Your task to perform on an android device: turn off priority inbox in the gmail app Image 0: 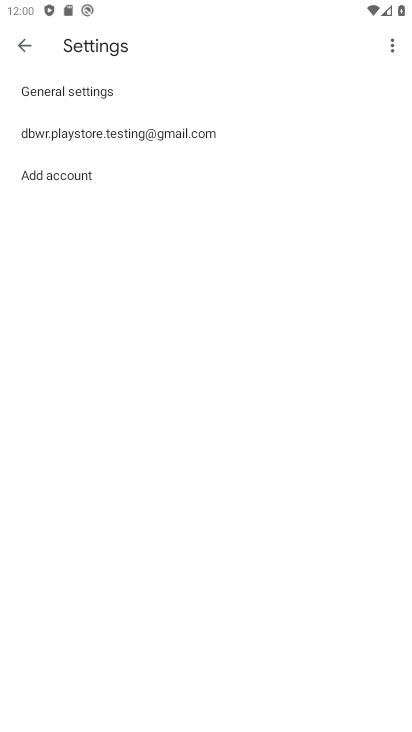
Step 0: press home button
Your task to perform on an android device: turn off priority inbox in the gmail app Image 1: 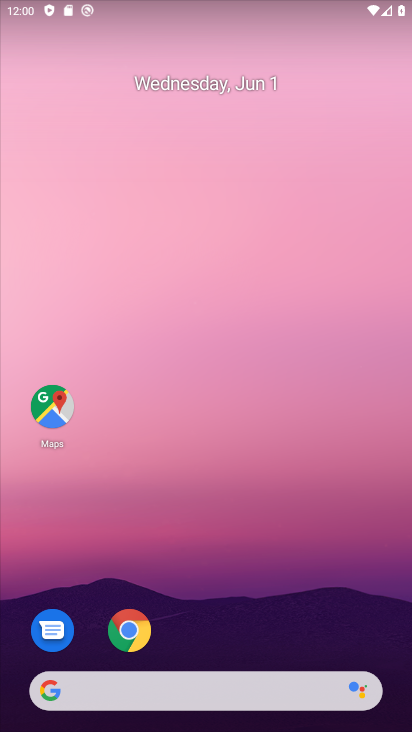
Step 1: drag from (381, 610) to (364, 263)
Your task to perform on an android device: turn off priority inbox in the gmail app Image 2: 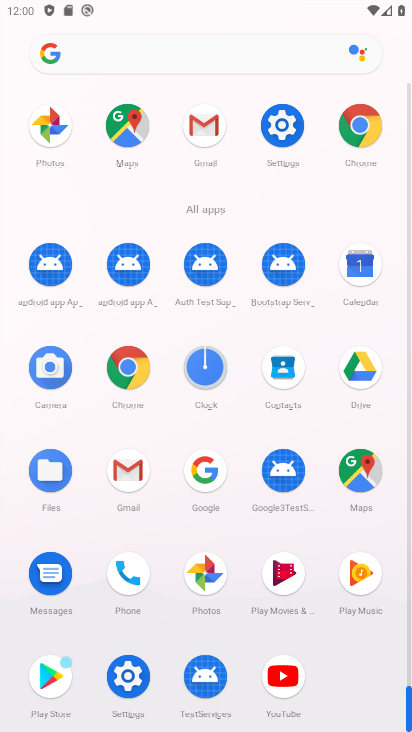
Step 2: click (138, 476)
Your task to perform on an android device: turn off priority inbox in the gmail app Image 3: 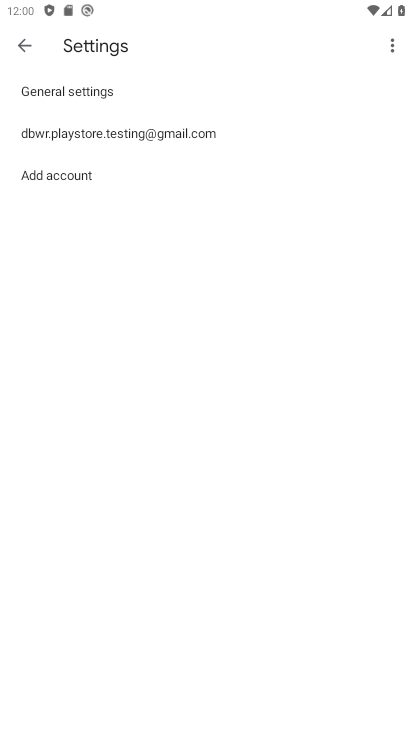
Step 3: click (186, 144)
Your task to perform on an android device: turn off priority inbox in the gmail app Image 4: 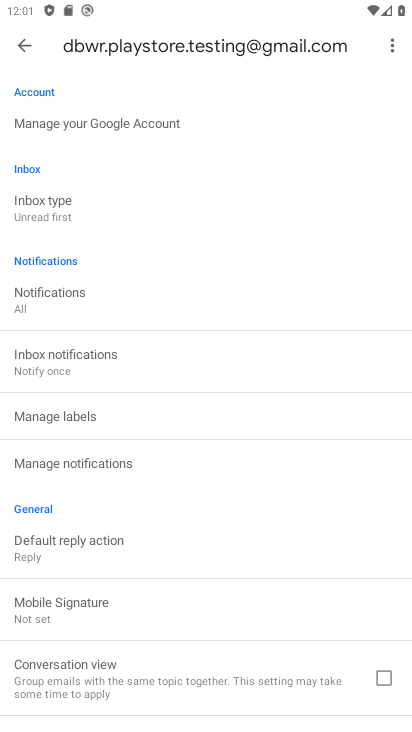
Step 4: task complete